Your task to perform on an android device: set default search engine in the chrome app Image 0: 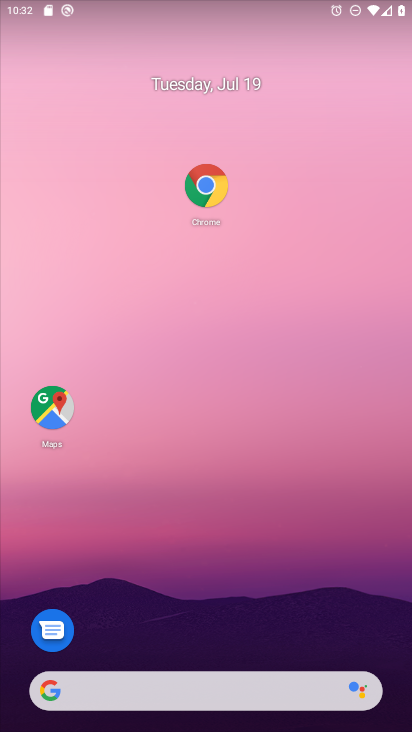
Step 0: drag from (124, 584) to (115, 7)
Your task to perform on an android device: set default search engine in the chrome app Image 1: 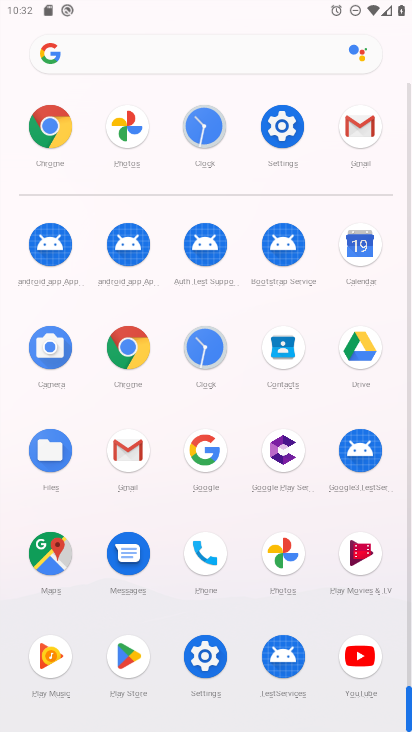
Step 1: drag from (225, 530) to (187, 4)
Your task to perform on an android device: set default search engine in the chrome app Image 2: 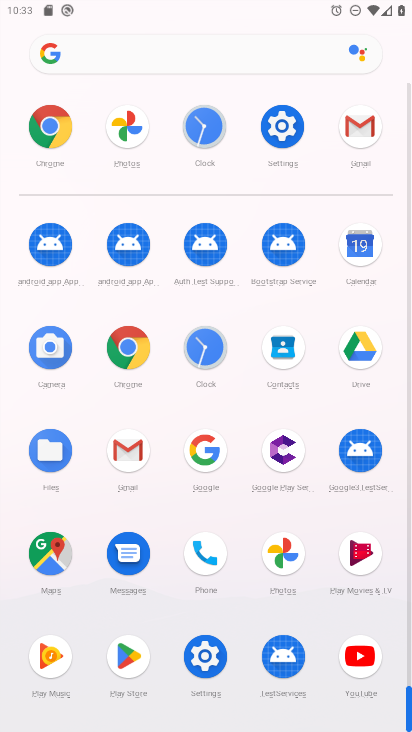
Step 2: click (130, 373)
Your task to perform on an android device: set default search engine in the chrome app Image 3: 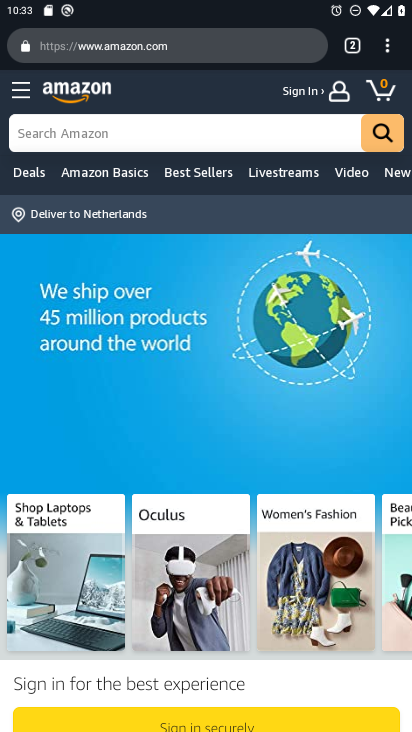
Step 3: click (395, 44)
Your task to perform on an android device: set default search engine in the chrome app Image 4: 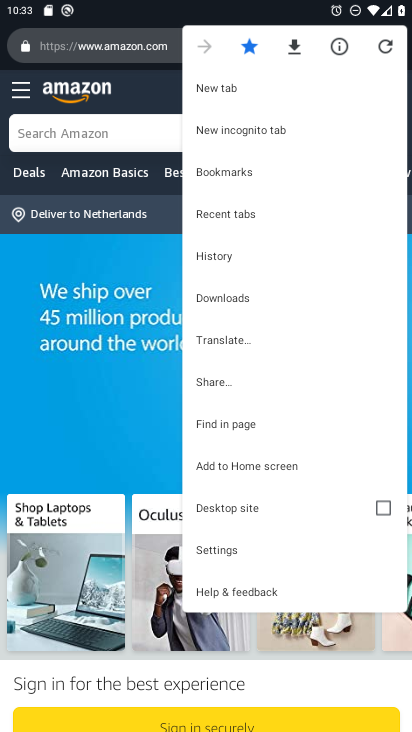
Step 4: click (243, 548)
Your task to perform on an android device: set default search engine in the chrome app Image 5: 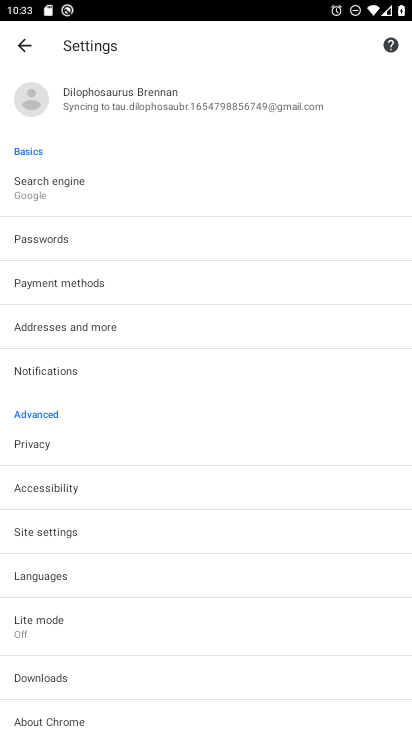
Step 5: click (140, 182)
Your task to perform on an android device: set default search engine in the chrome app Image 6: 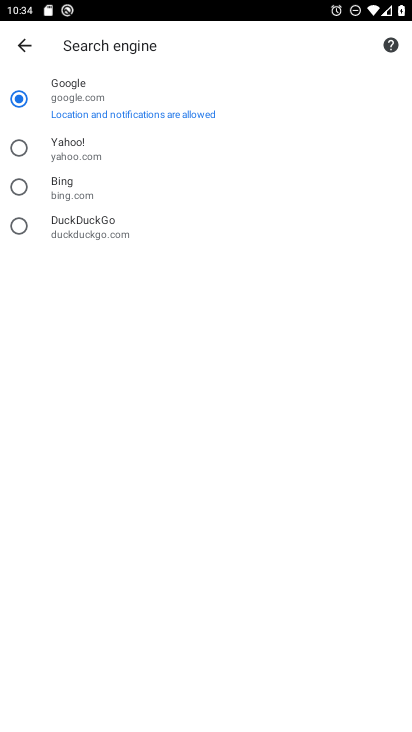
Step 6: task complete